Your task to perform on an android device: Go to accessibility settings Image 0: 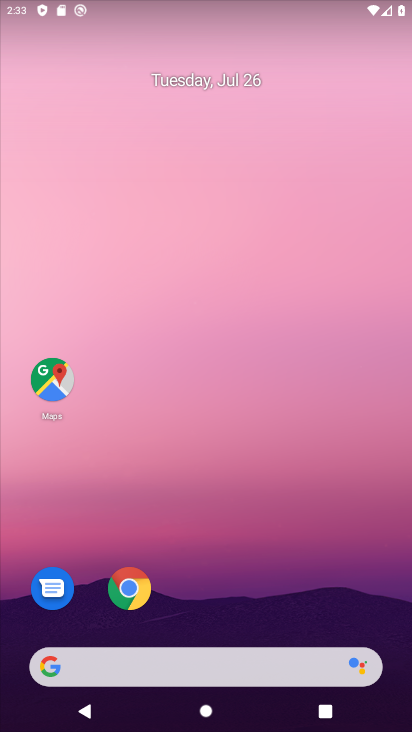
Step 0: drag from (266, 527) to (223, 141)
Your task to perform on an android device: Go to accessibility settings Image 1: 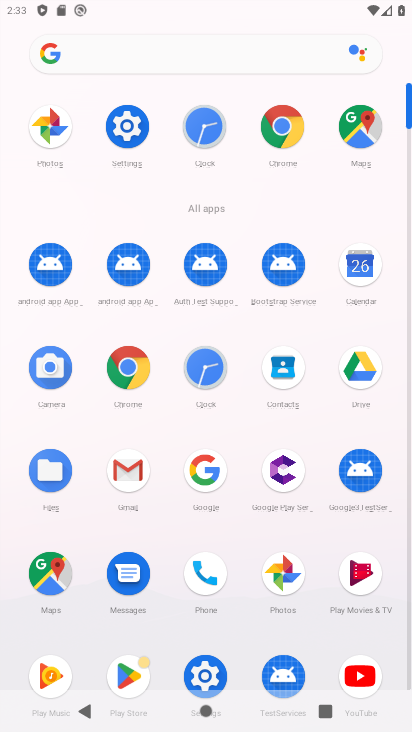
Step 1: click (124, 138)
Your task to perform on an android device: Go to accessibility settings Image 2: 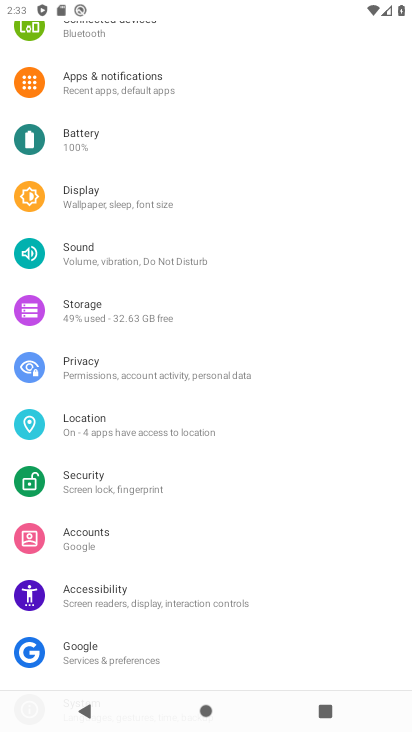
Step 2: click (129, 591)
Your task to perform on an android device: Go to accessibility settings Image 3: 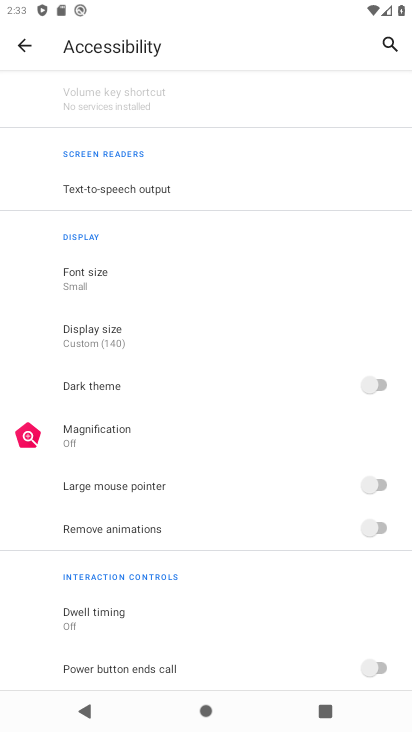
Step 3: task complete